Your task to perform on an android device: Is it going to rain today? Image 0: 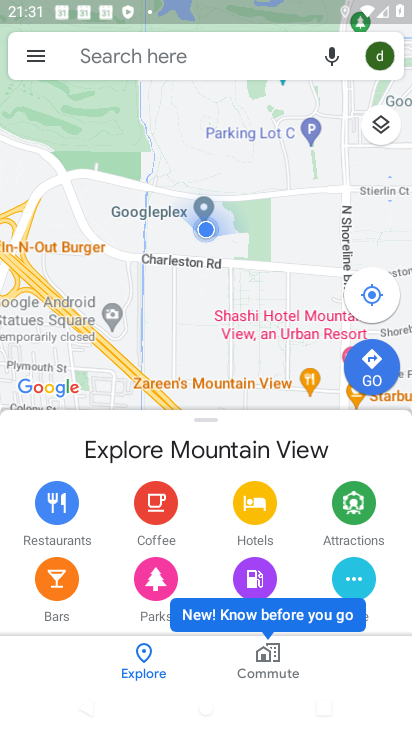
Step 0: press home button
Your task to perform on an android device: Is it going to rain today? Image 1: 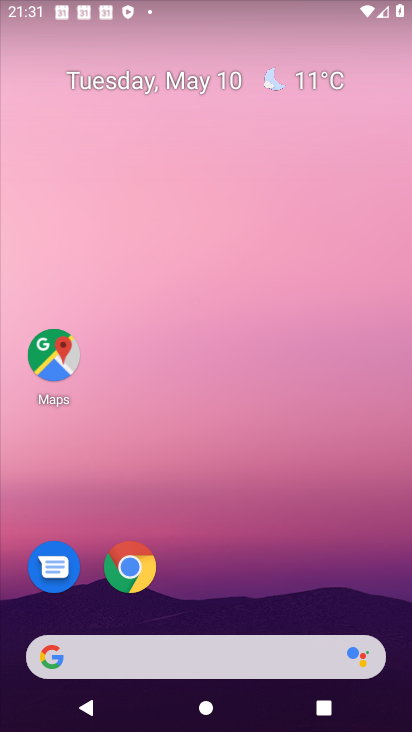
Step 1: drag from (174, 629) to (174, 298)
Your task to perform on an android device: Is it going to rain today? Image 2: 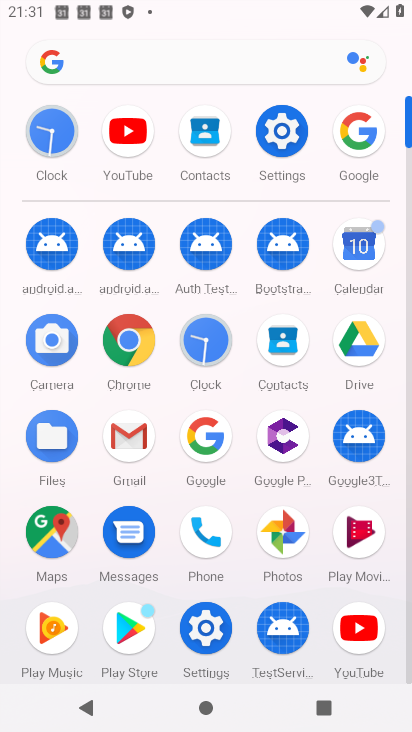
Step 2: click (208, 434)
Your task to perform on an android device: Is it going to rain today? Image 3: 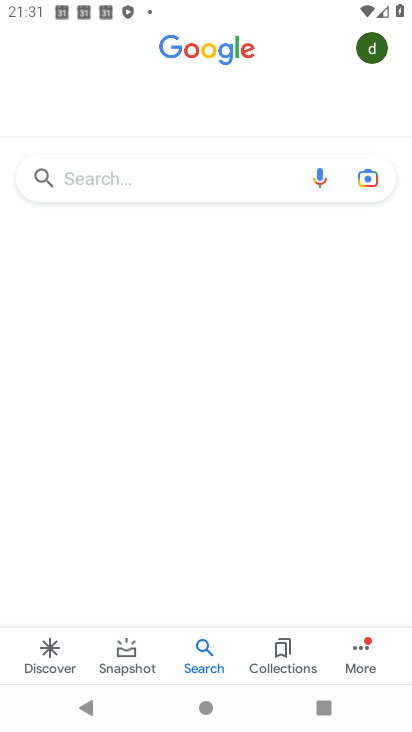
Step 3: click (101, 181)
Your task to perform on an android device: Is it going to rain today? Image 4: 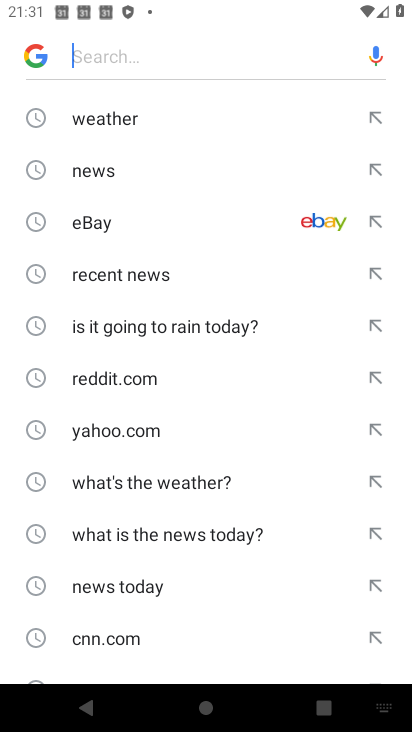
Step 4: click (156, 327)
Your task to perform on an android device: Is it going to rain today? Image 5: 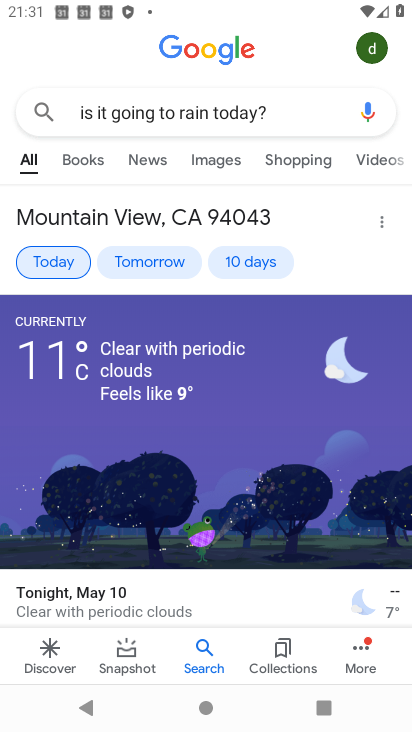
Step 5: drag from (203, 538) to (186, 266)
Your task to perform on an android device: Is it going to rain today? Image 6: 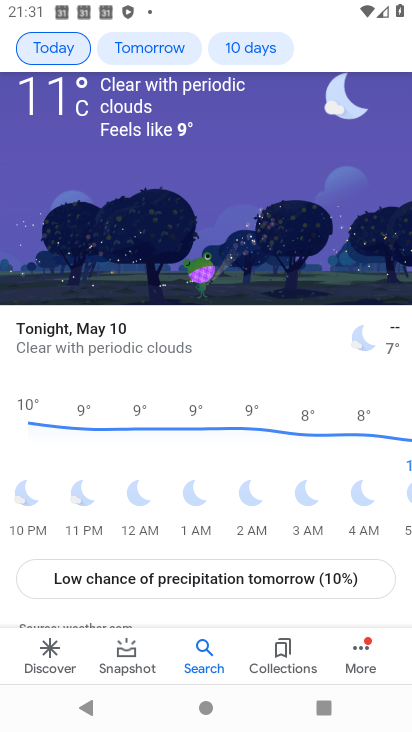
Step 6: drag from (203, 518) to (206, 276)
Your task to perform on an android device: Is it going to rain today? Image 7: 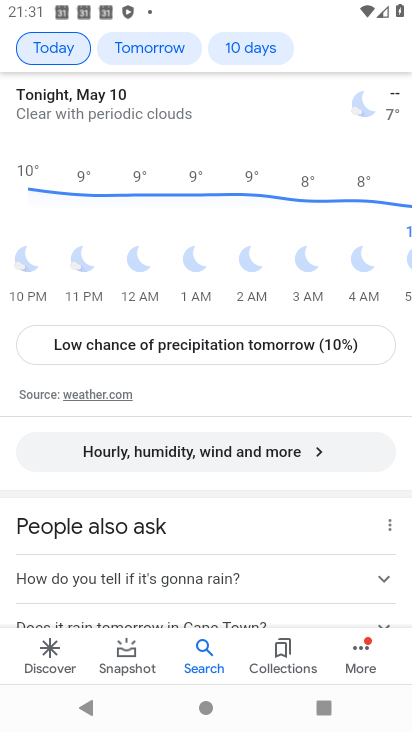
Step 7: click (228, 345)
Your task to perform on an android device: Is it going to rain today? Image 8: 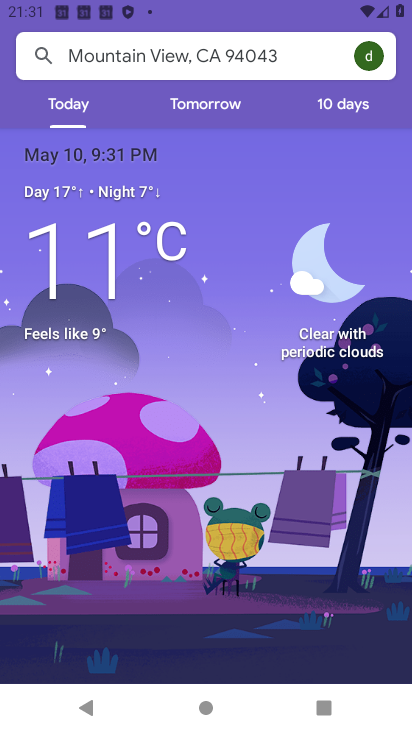
Step 8: task complete